Your task to perform on an android device: turn on translation in the chrome app Image 0: 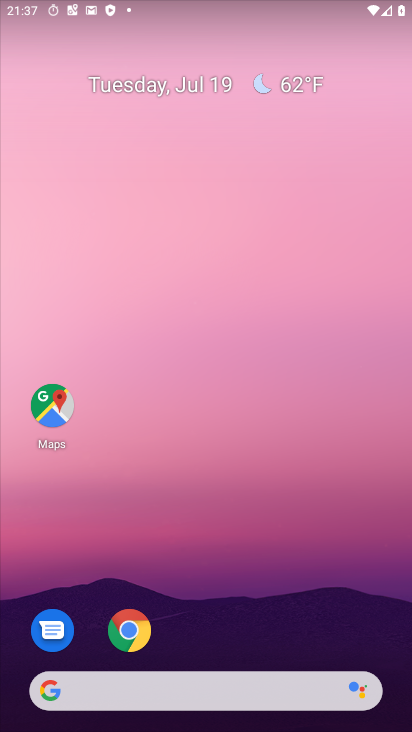
Step 0: click (129, 628)
Your task to perform on an android device: turn on translation in the chrome app Image 1: 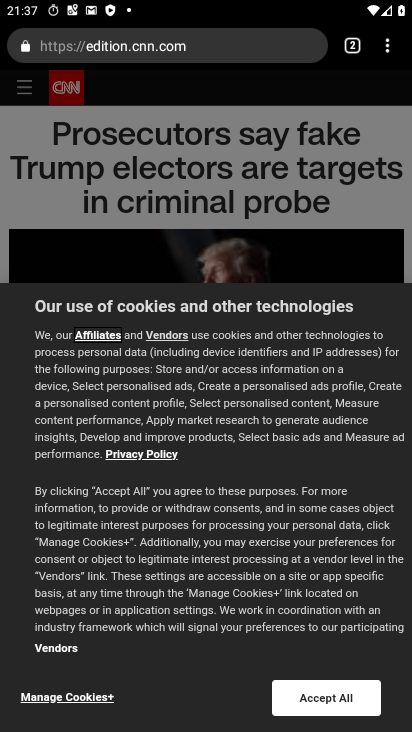
Step 1: click (390, 44)
Your task to perform on an android device: turn on translation in the chrome app Image 2: 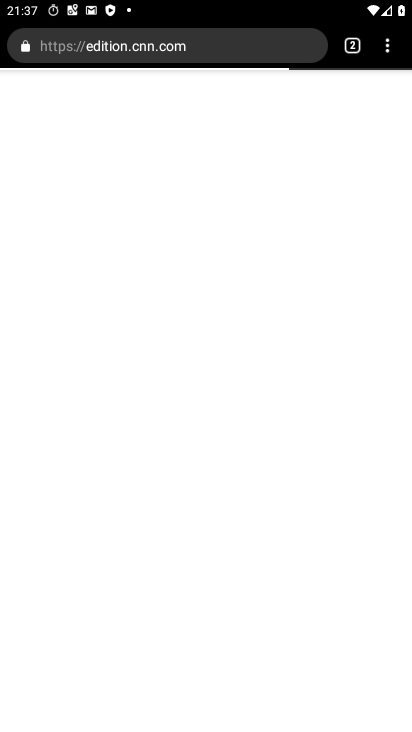
Step 2: click (389, 48)
Your task to perform on an android device: turn on translation in the chrome app Image 3: 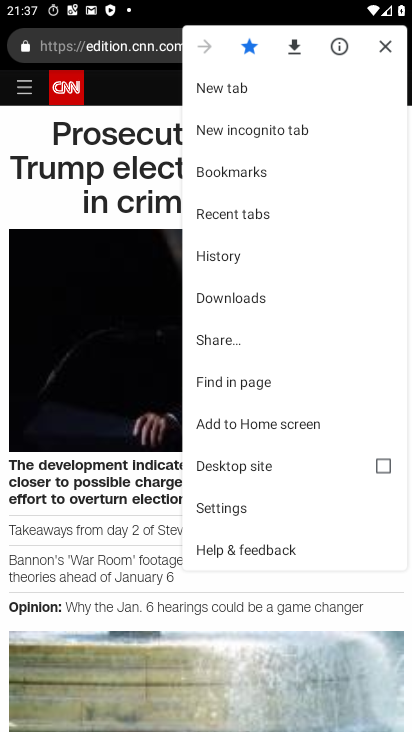
Step 3: click (219, 511)
Your task to perform on an android device: turn on translation in the chrome app Image 4: 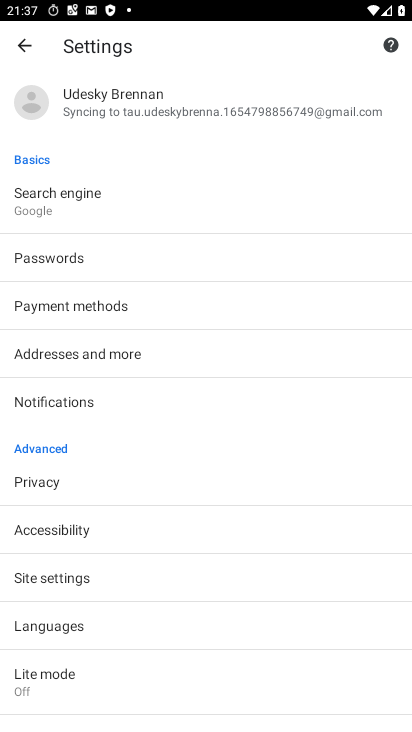
Step 4: click (49, 629)
Your task to perform on an android device: turn on translation in the chrome app Image 5: 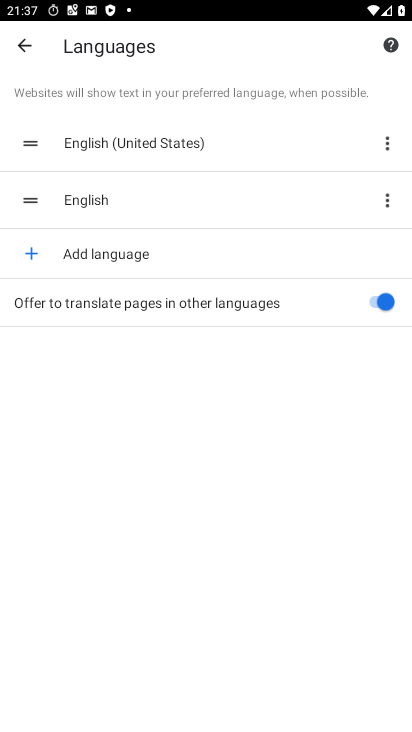
Step 5: task complete